Your task to perform on an android device: Open Reddit.com Image 0: 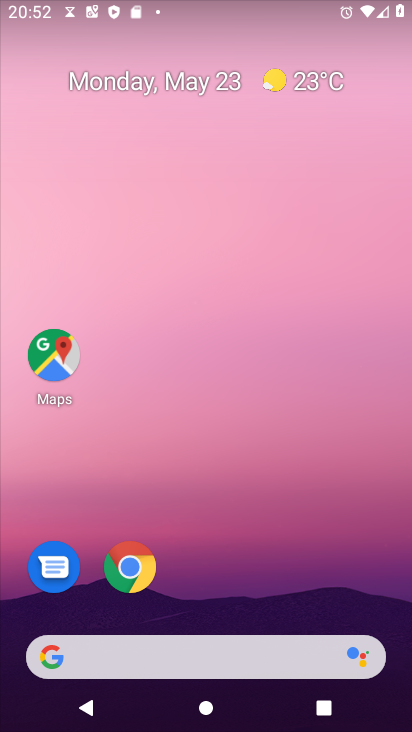
Step 0: drag from (234, 605) to (221, 300)
Your task to perform on an android device: Open Reddit.com Image 1: 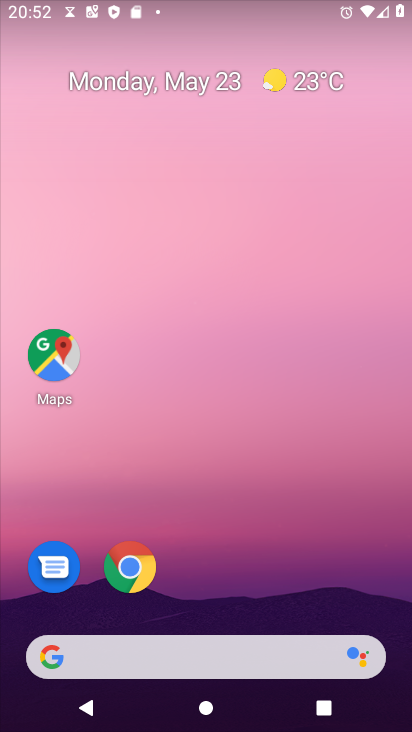
Step 1: click (129, 563)
Your task to perform on an android device: Open Reddit.com Image 2: 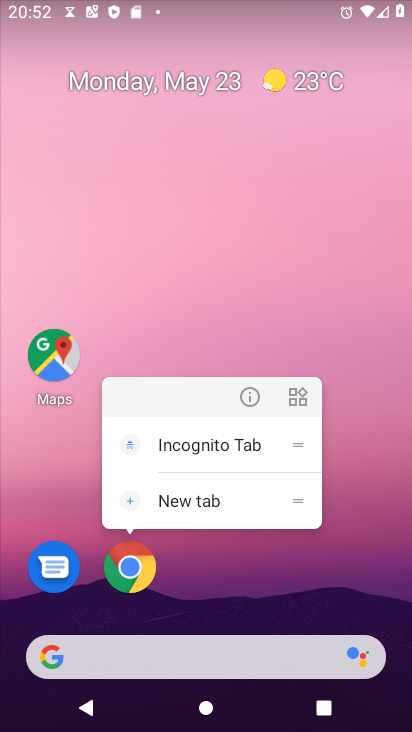
Step 2: click (129, 563)
Your task to perform on an android device: Open Reddit.com Image 3: 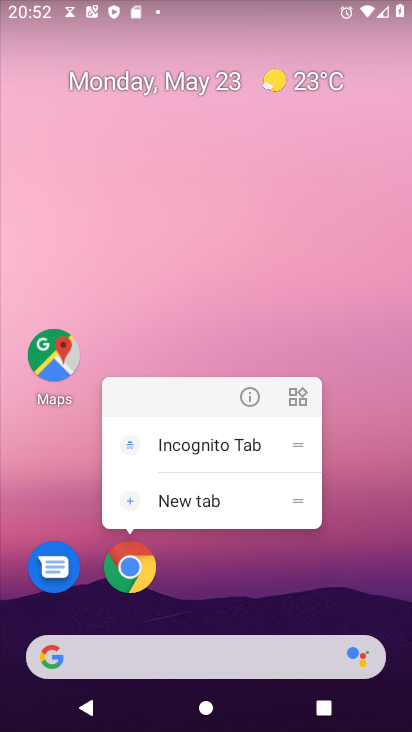
Step 3: click (129, 563)
Your task to perform on an android device: Open Reddit.com Image 4: 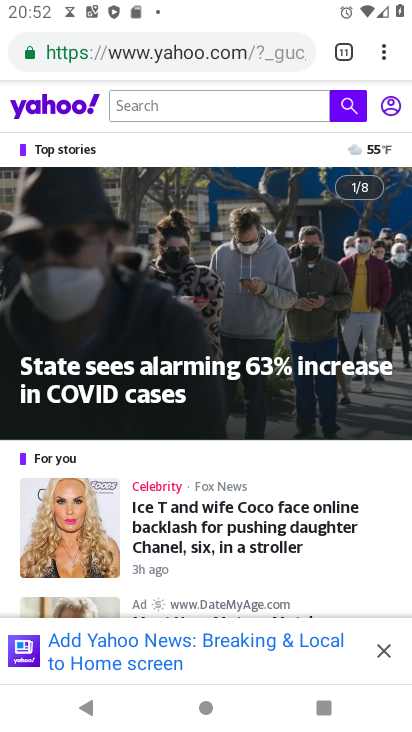
Step 4: click (383, 48)
Your task to perform on an android device: Open Reddit.com Image 5: 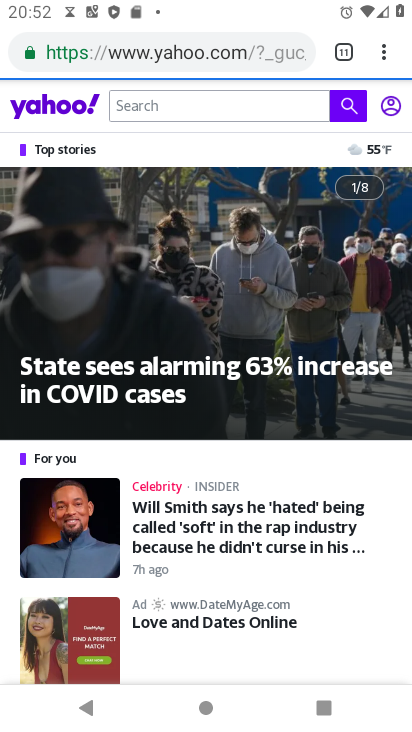
Step 5: click (375, 51)
Your task to perform on an android device: Open Reddit.com Image 6: 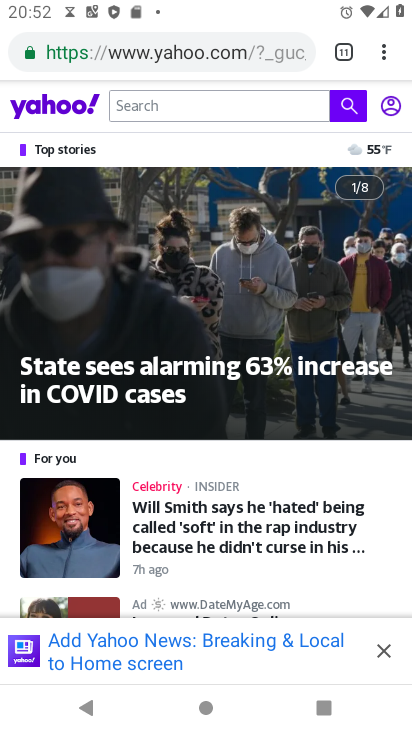
Step 6: click (378, 49)
Your task to perform on an android device: Open Reddit.com Image 7: 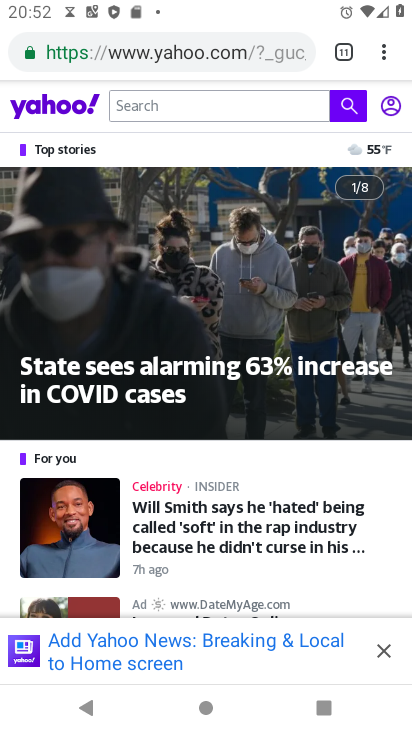
Step 7: click (374, 52)
Your task to perform on an android device: Open Reddit.com Image 8: 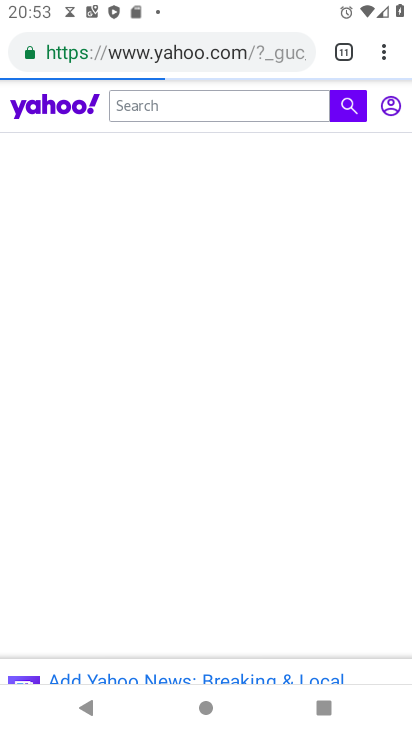
Step 8: click (374, 52)
Your task to perform on an android device: Open Reddit.com Image 9: 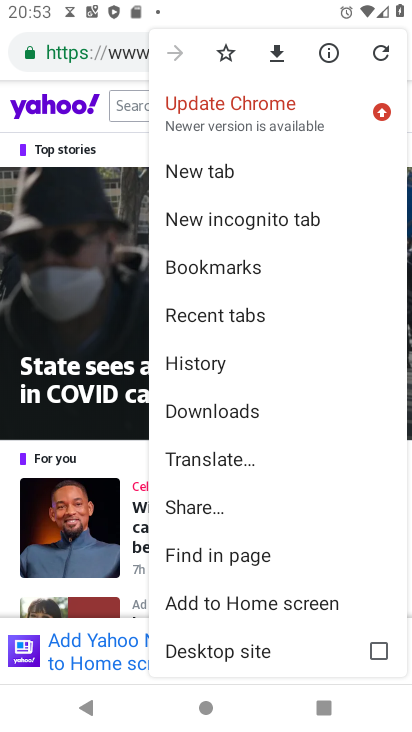
Step 9: click (231, 174)
Your task to perform on an android device: Open Reddit.com Image 10: 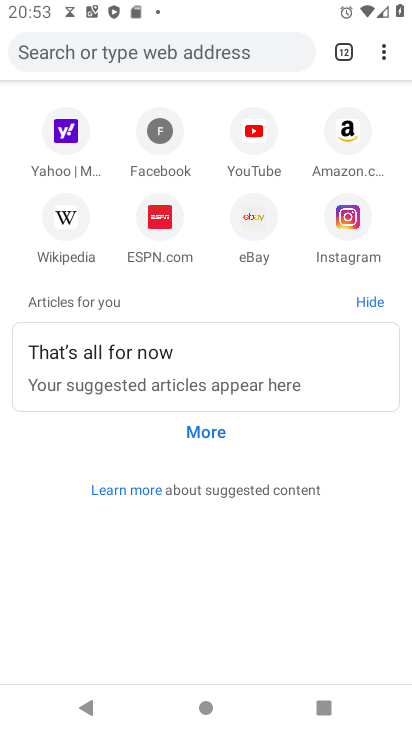
Step 10: click (236, 47)
Your task to perform on an android device: Open Reddit.com Image 11: 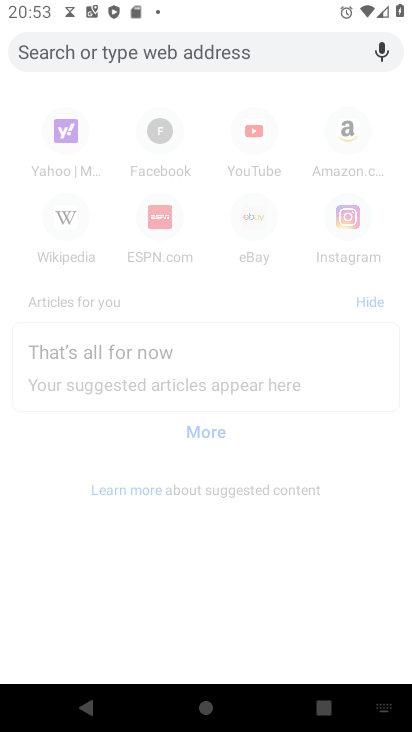
Step 11: type " Reddit.com"
Your task to perform on an android device: Open Reddit.com Image 12: 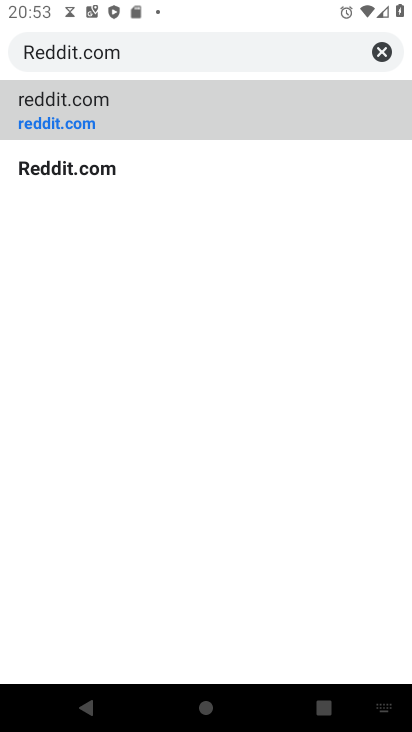
Step 12: click (175, 107)
Your task to perform on an android device: Open Reddit.com Image 13: 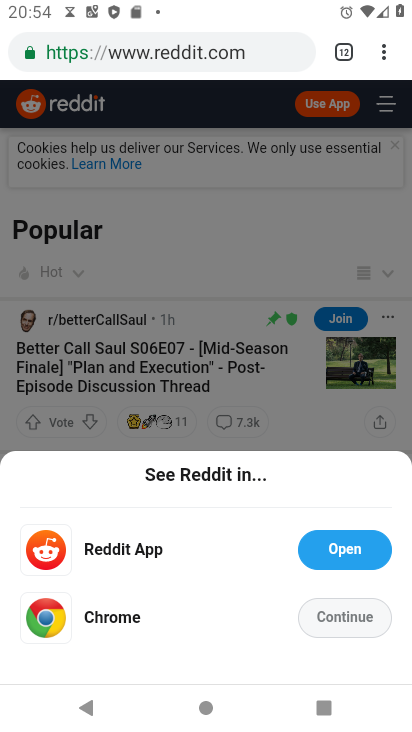
Step 13: task complete